Your task to perform on an android device: Go to internet settings Image 0: 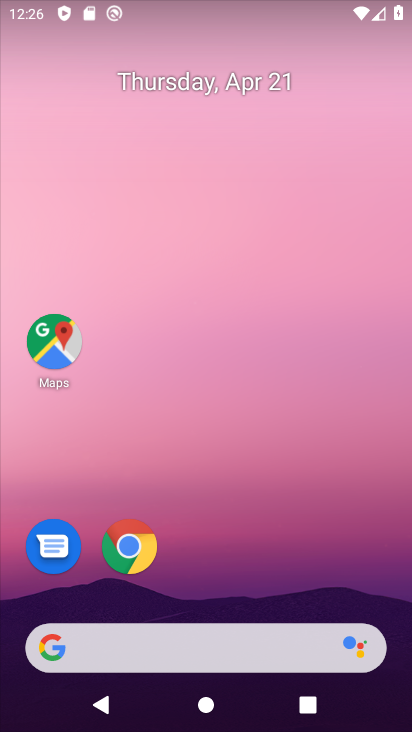
Step 0: drag from (278, 494) to (276, 232)
Your task to perform on an android device: Go to internet settings Image 1: 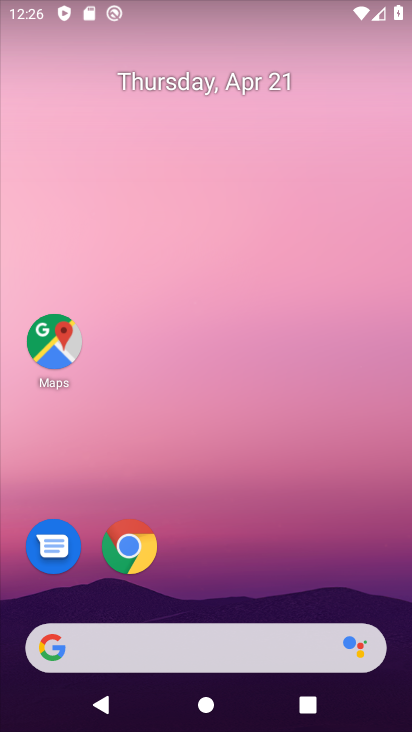
Step 1: drag from (242, 603) to (264, 105)
Your task to perform on an android device: Go to internet settings Image 2: 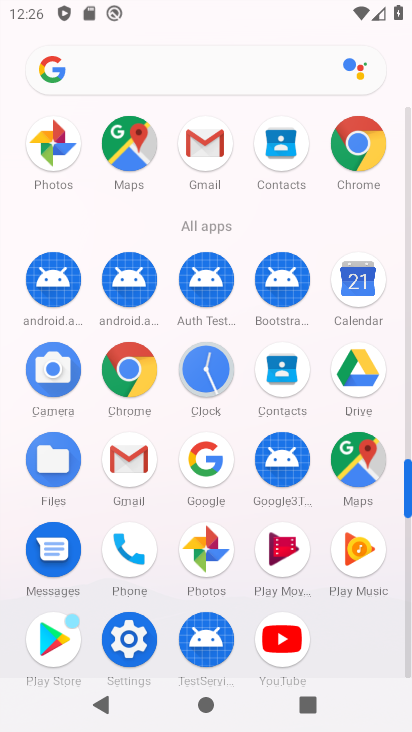
Step 2: click (136, 649)
Your task to perform on an android device: Go to internet settings Image 3: 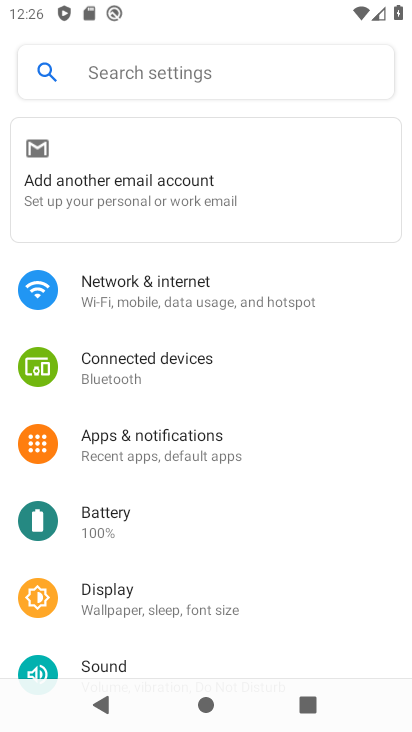
Step 3: click (171, 298)
Your task to perform on an android device: Go to internet settings Image 4: 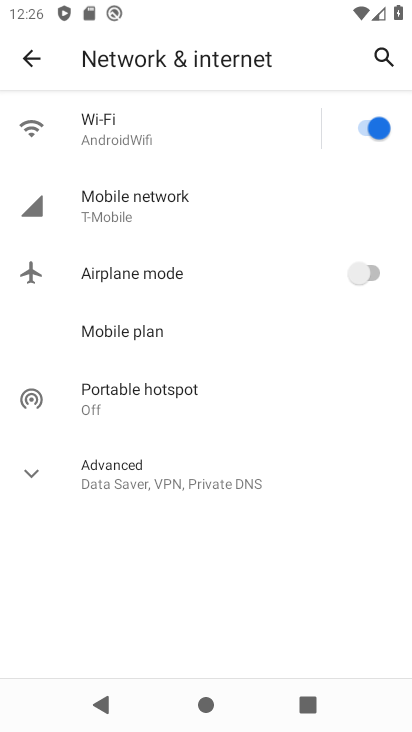
Step 4: task complete